Your task to perform on an android device: Open the calendar and show me this week's events Image 0: 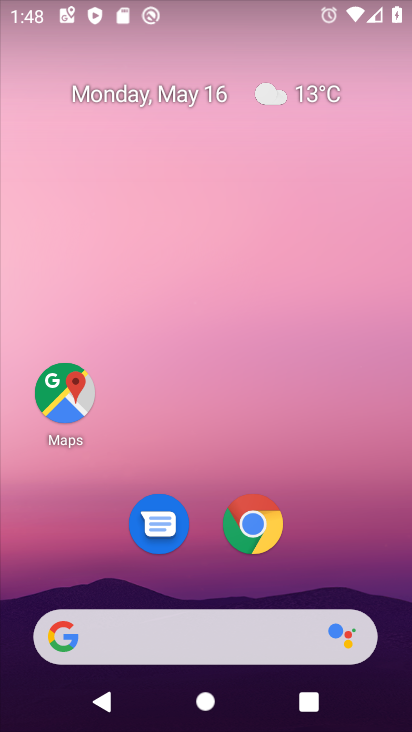
Step 0: drag from (229, 465) to (244, 32)
Your task to perform on an android device: Open the calendar and show me this week's events Image 1: 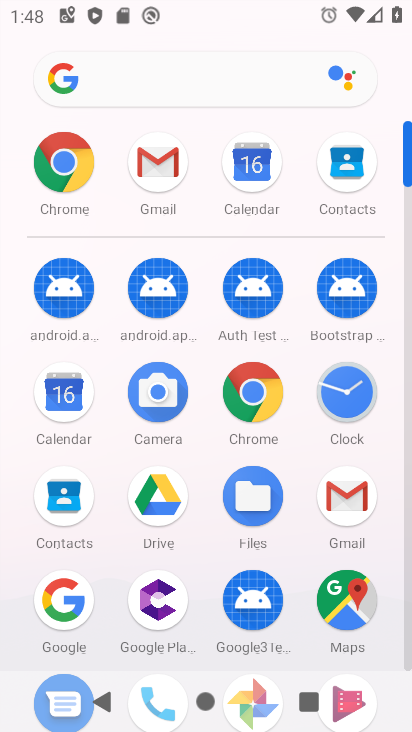
Step 1: click (238, 160)
Your task to perform on an android device: Open the calendar and show me this week's events Image 2: 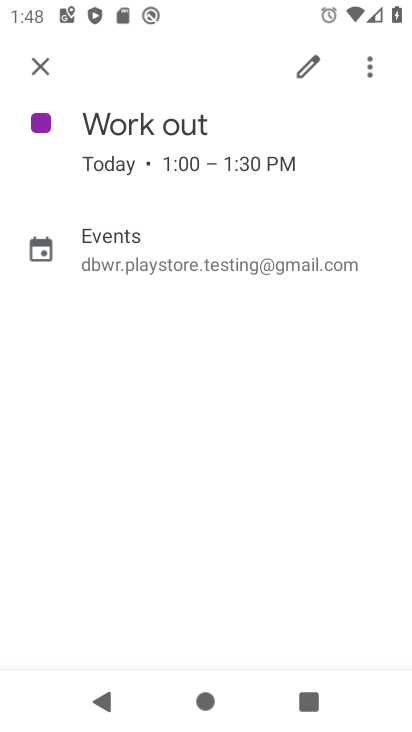
Step 2: click (44, 68)
Your task to perform on an android device: Open the calendar and show me this week's events Image 3: 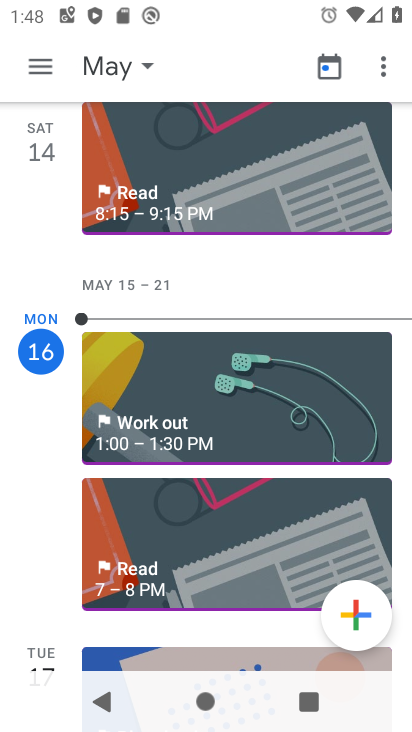
Step 3: click (42, 70)
Your task to perform on an android device: Open the calendar and show me this week's events Image 4: 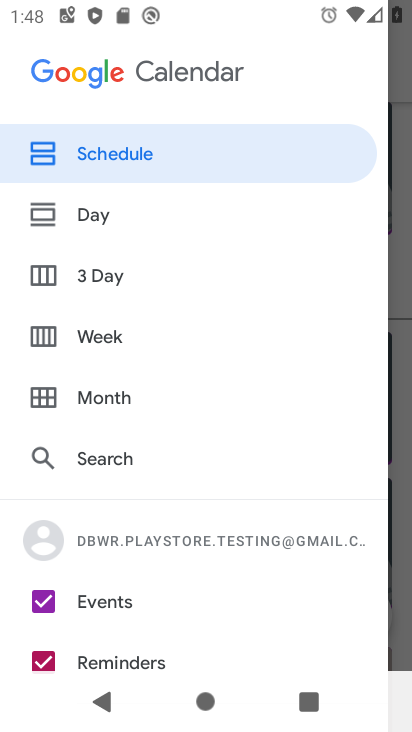
Step 4: click (79, 325)
Your task to perform on an android device: Open the calendar and show me this week's events Image 5: 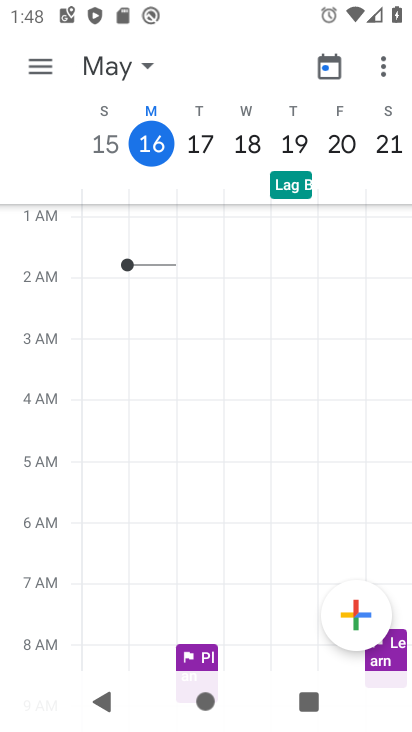
Step 5: task complete